Your task to perform on an android device: toggle airplane mode Image 0: 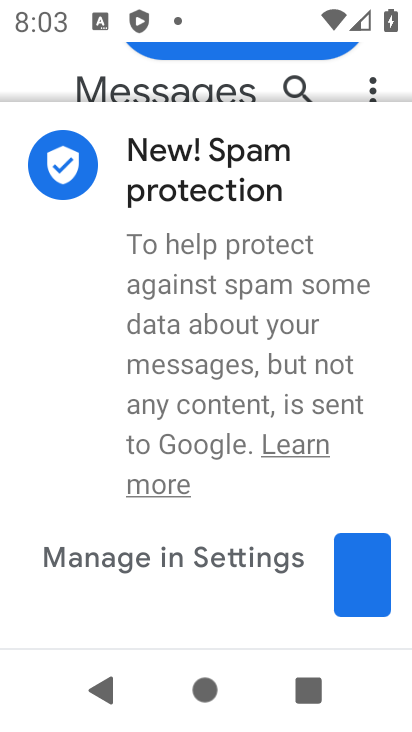
Step 0: task complete